Your task to perform on an android device: see creations saved in the google photos Image 0: 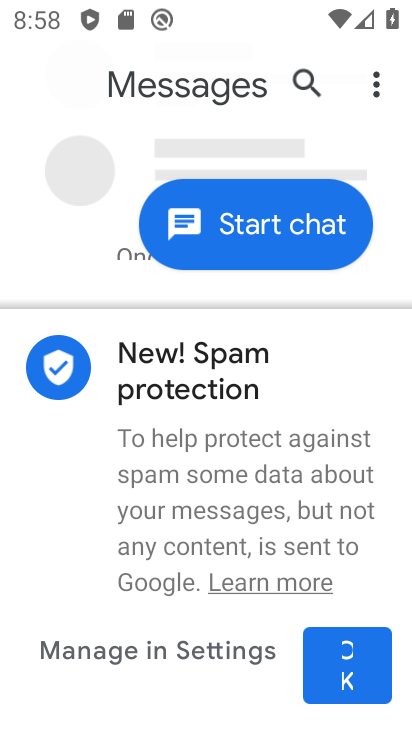
Step 0: press home button
Your task to perform on an android device: see creations saved in the google photos Image 1: 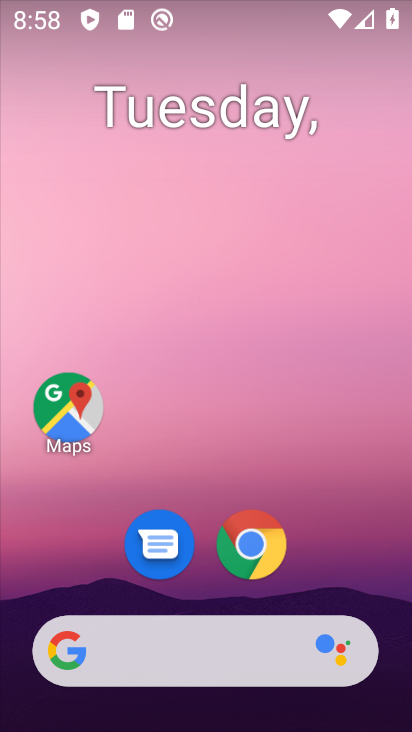
Step 1: drag from (196, 593) to (394, 298)
Your task to perform on an android device: see creations saved in the google photos Image 2: 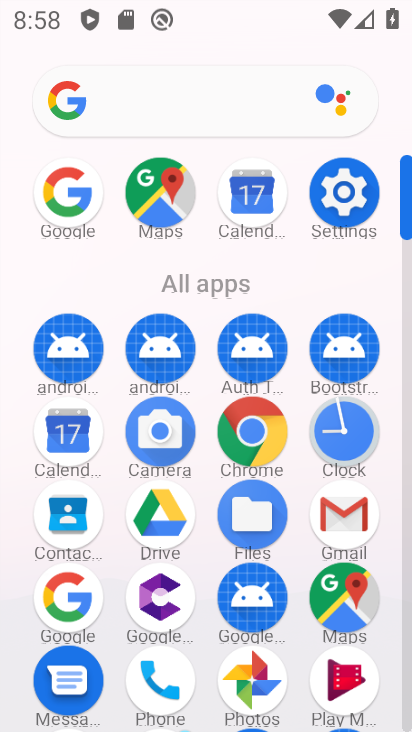
Step 2: click (268, 664)
Your task to perform on an android device: see creations saved in the google photos Image 3: 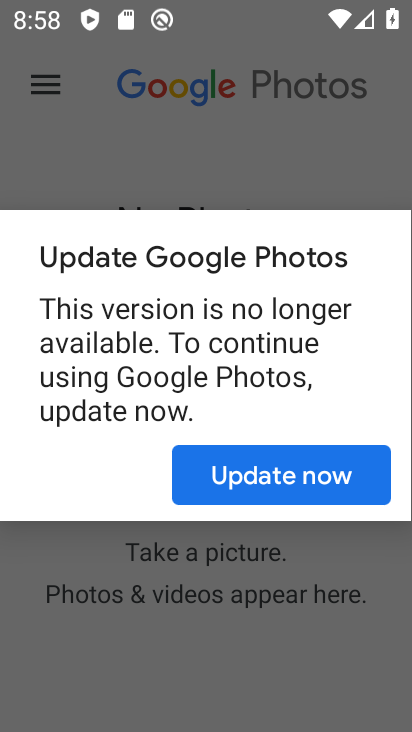
Step 3: click (299, 469)
Your task to perform on an android device: see creations saved in the google photos Image 4: 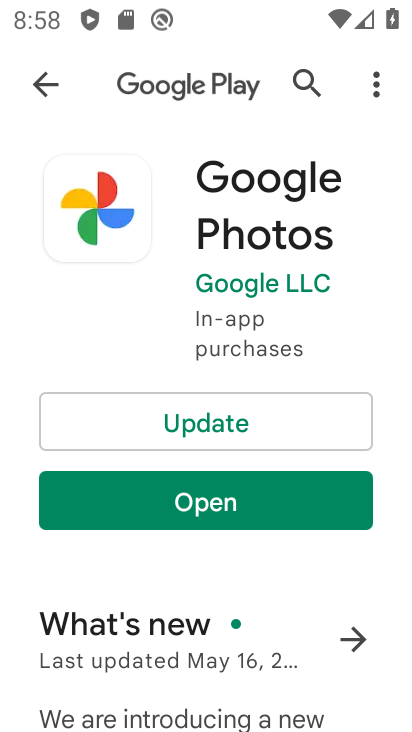
Step 4: click (259, 481)
Your task to perform on an android device: see creations saved in the google photos Image 5: 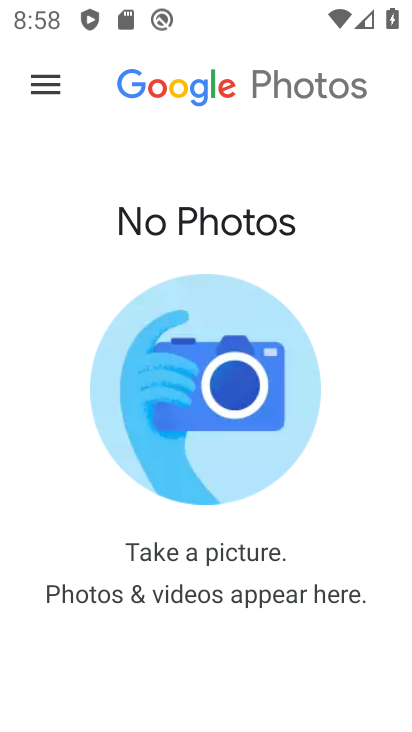
Step 5: click (50, 72)
Your task to perform on an android device: see creations saved in the google photos Image 6: 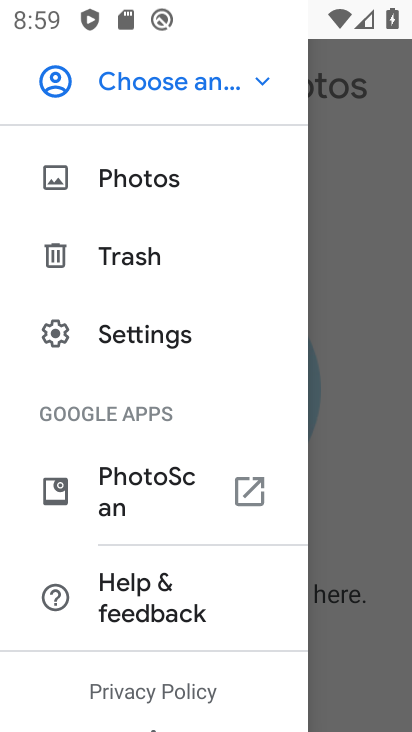
Step 6: click (160, 84)
Your task to perform on an android device: see creations saved in the google photos Image 7: 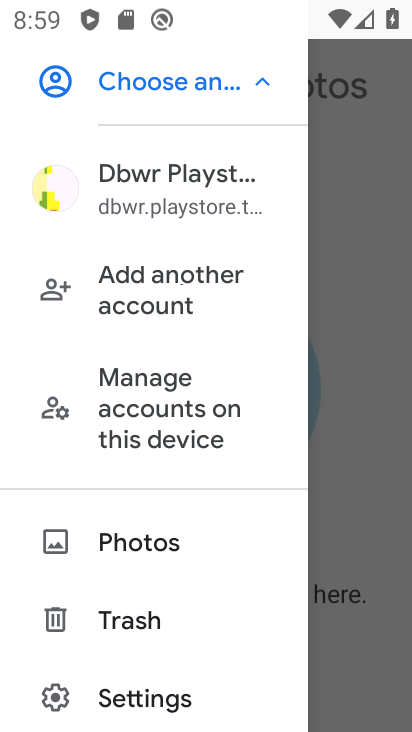
Step 7: click (144, 164)
Your task to perform on an android device: see creations saved in the google photos Image 8: 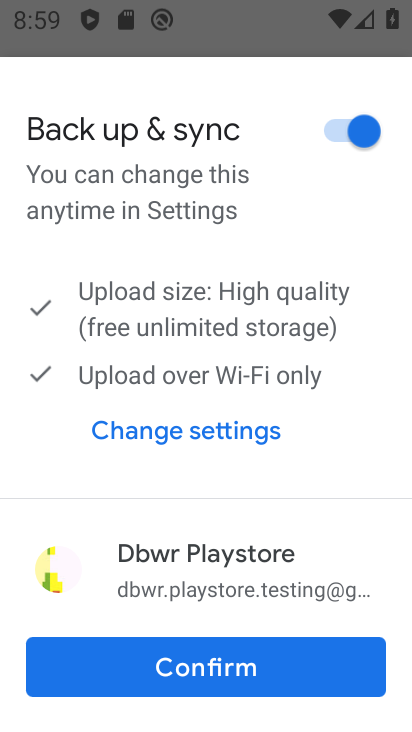
Step 8: click (217, 672)
Your task to perform on an android device: see creations saved in the google photos Image 9: 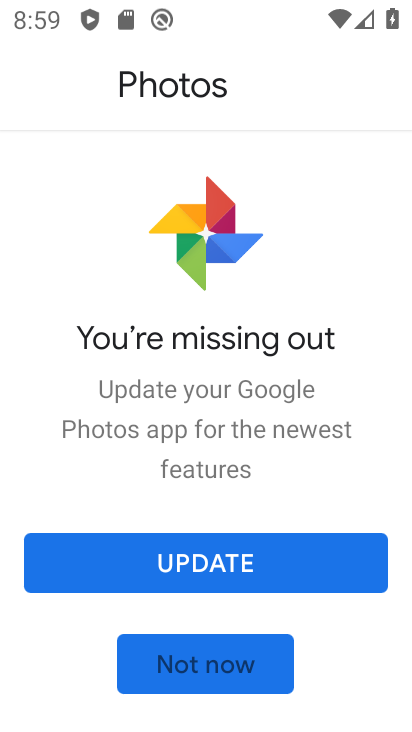
Step 9: click (166, 654)
Your task to perform on an android device: see creations saved in the google photos Image 10: 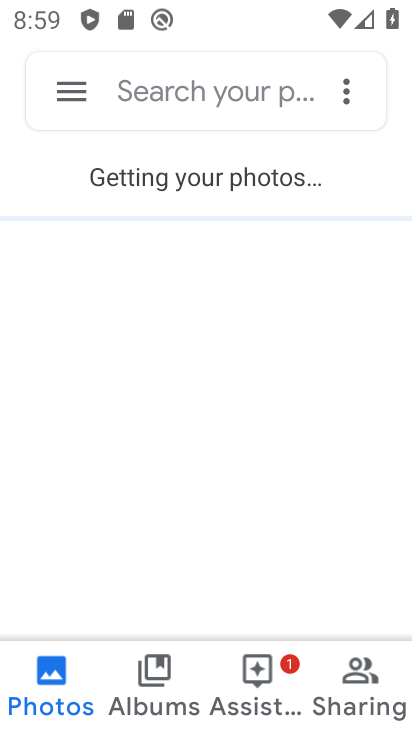
Step 10: click (217, 117)
Your task to perform on an android device: see creations saved in the google photos Image 11: 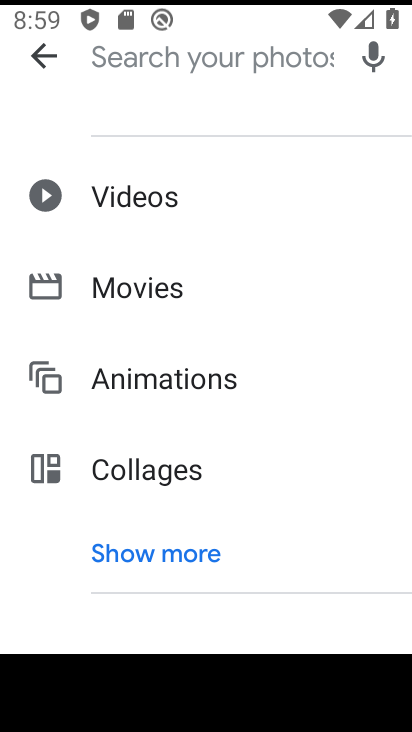
Step 11: click (112, 570)
Your task to perform on an android device: see creations saved in the google photos Image 12: 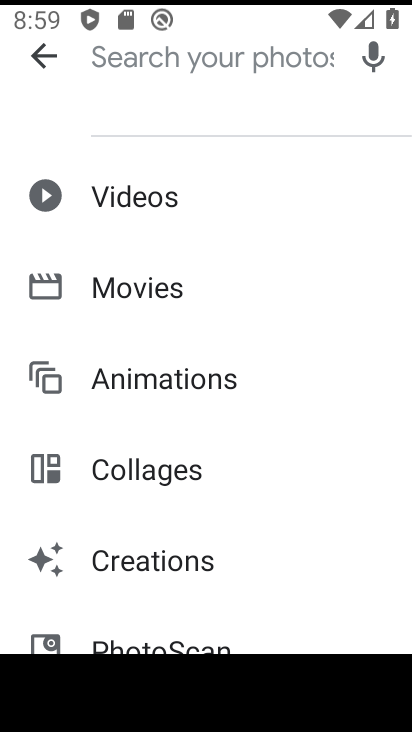
Step 12: click (155, 560)
Your task to perform on an android device: see creations saved in the google photos Image 13: 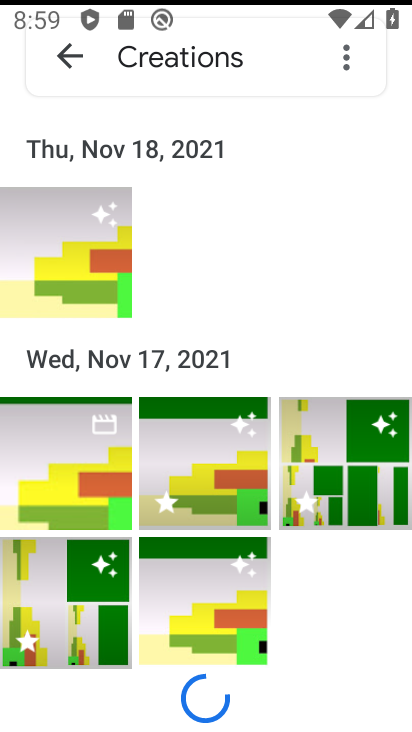
Step 13: task complete